Your task to perform on an android device: toggle sleep mode Image 0: 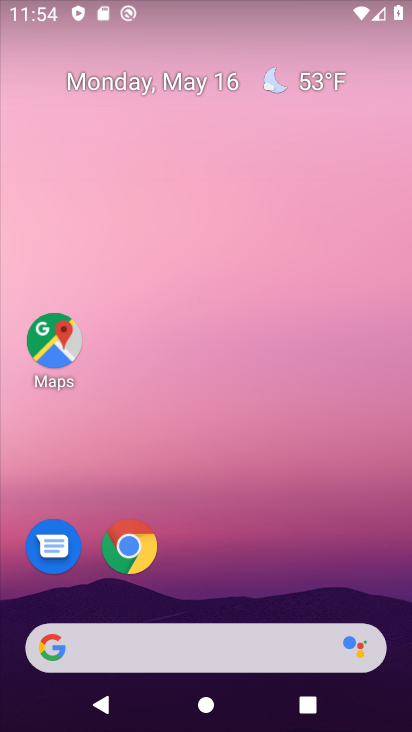
Step 0: drag from (212, 556) to (245, 132)
Your task to perform on an android device: toggle sleep mode Image 1: 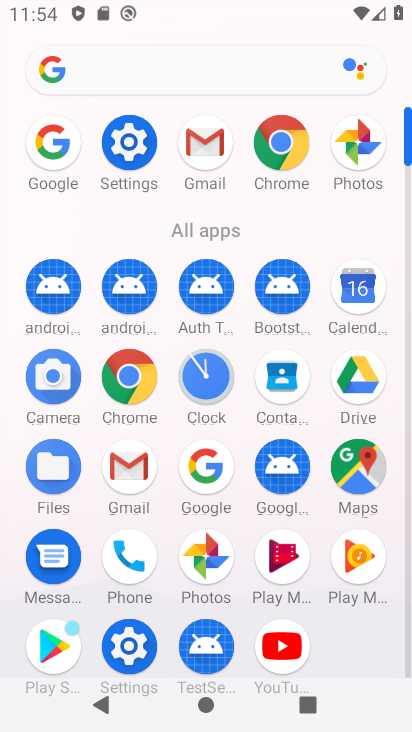
Step 1: click (126, 141)
Your task to perform on an android device: toggle sleep mode Image 2: 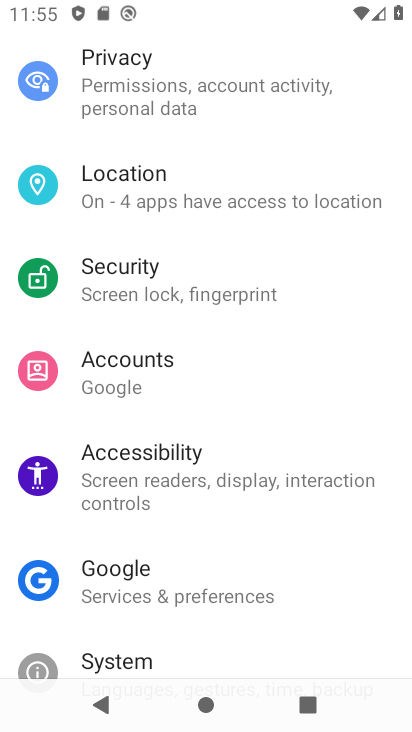
Step 2: drag from (209, 141) to (201, 523)
Your task to perform on an android device: toggle sleep mode Image 3: 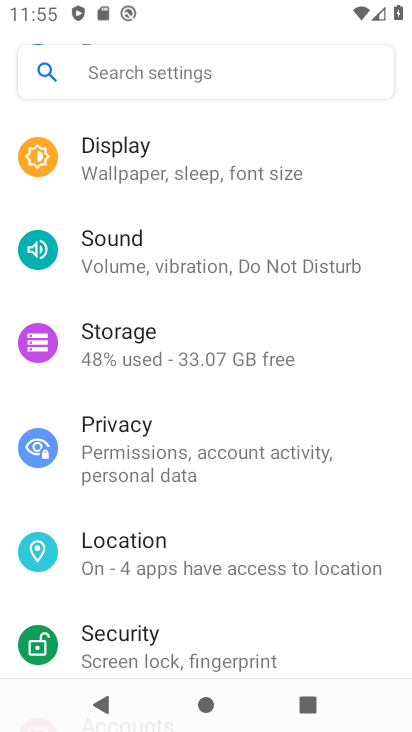
Step 3: click (143, 162)
Your task to perform on an android device: toggle sleep mode Image 4: 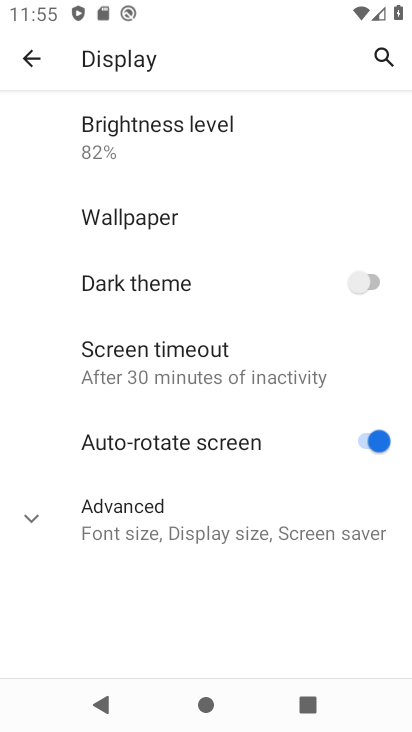
Step 4: click (165, 372)
Your task to perform on an android device: toggle sleep mode Image 5: 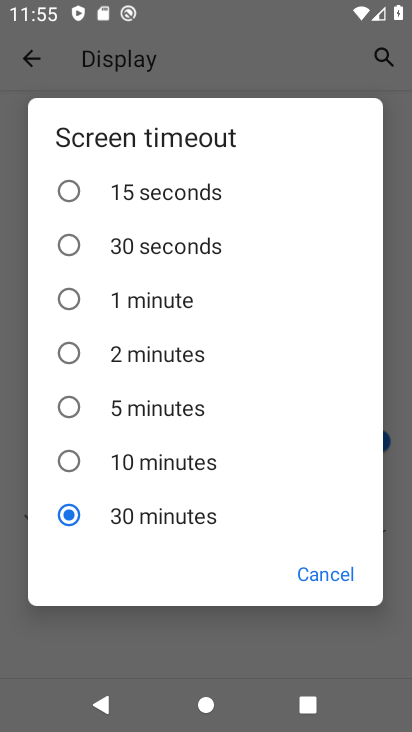
Step 5: click (75, 363)
Your task to perform on an android device: toggle sleep mode Image 6: 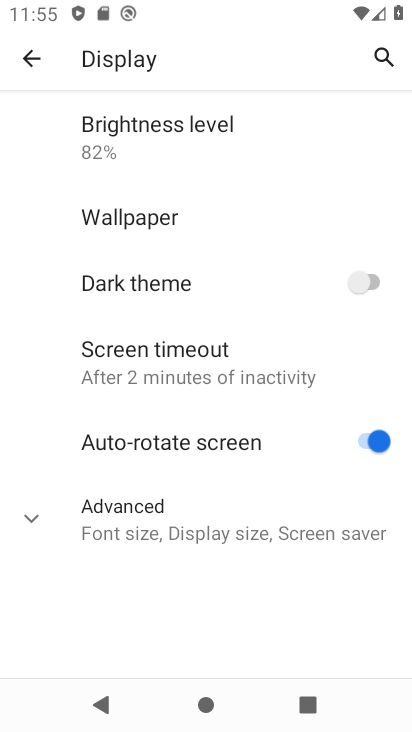
Step 6: task complete